Your task to perform on an android device: See recent photos Image 0: 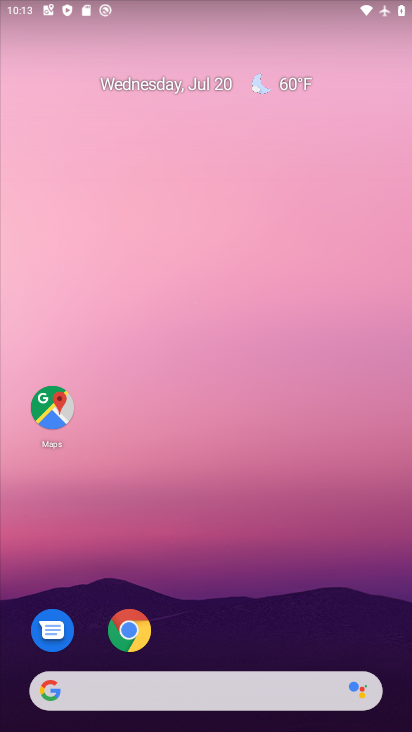
Step 0: drag from (219, 674) to (255, 259)
Your task to perform on an android device: See recent photos Image 1: 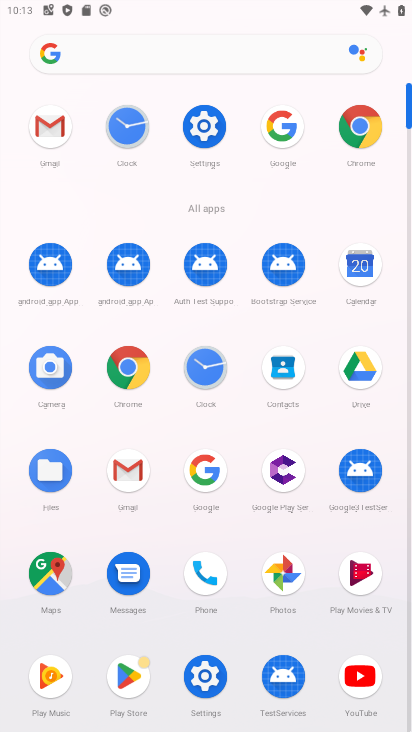
Step 1: click (271, 576)
Your task to perform on an android device: See recent photos Image 2: 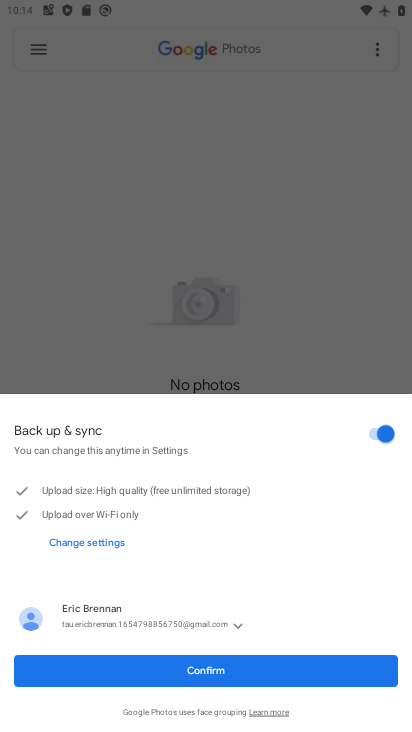
Step 2: click (248, 671)
Your task to perform on an android device: See recent photos Image 3: 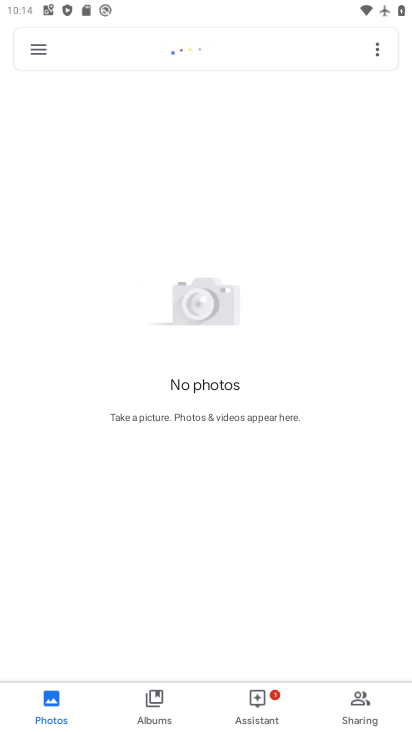
Step 3: task complete